Your task to perform on an android device: Open sound settings Image 0: 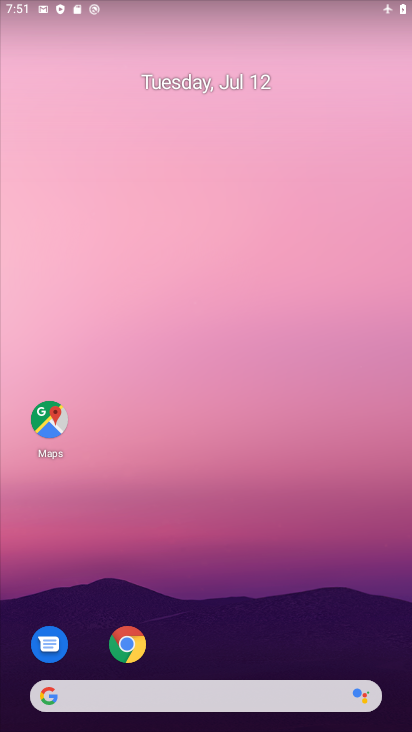
Step 0: drag from (237, 652) to (178, 186)
Your task to perform on an android device: Open sound settings Image 1: 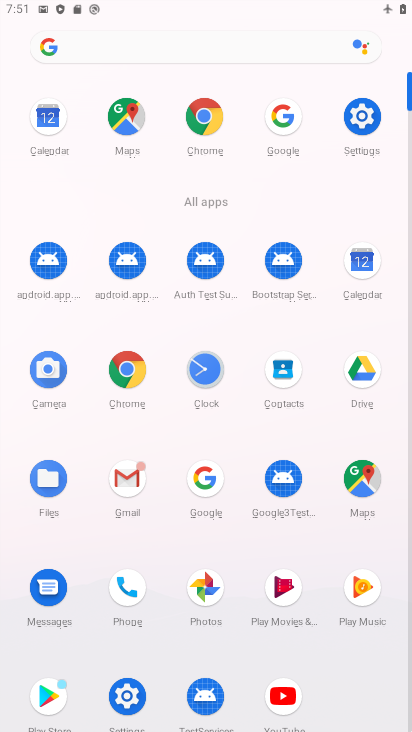
Step 1: click (362, 111)
Your task to perform on an android device: Open sound settings Image 2: 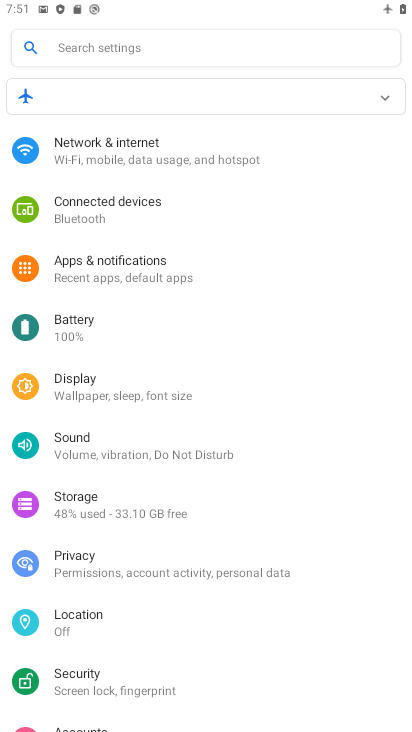
Step 2: click (100, 431)
Your task to perform on an android device: Open sound settings Image 3: 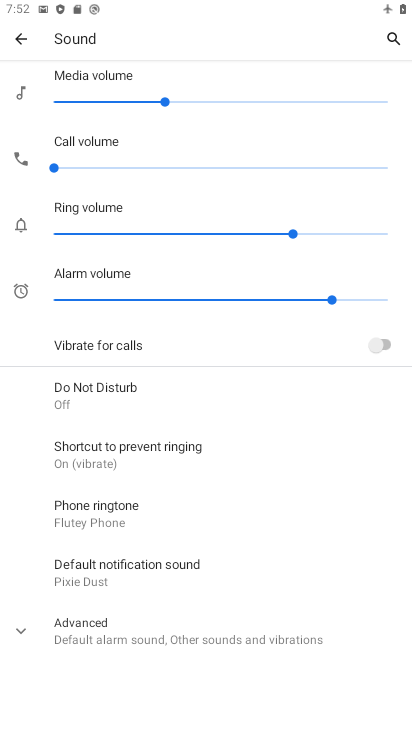
Step 3: task complete